Your task to perform on an android device: turn on notifications settings in the gmail app Image 0: 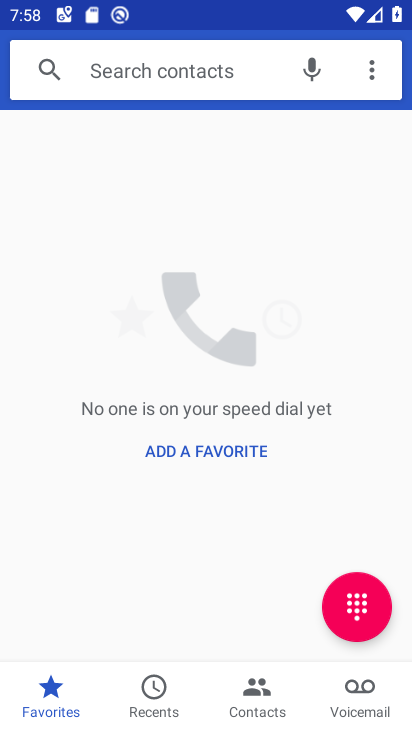
Step 0: press back button
Your task to perform on an android device: turn on notifications settings in the gmail app Image 1: 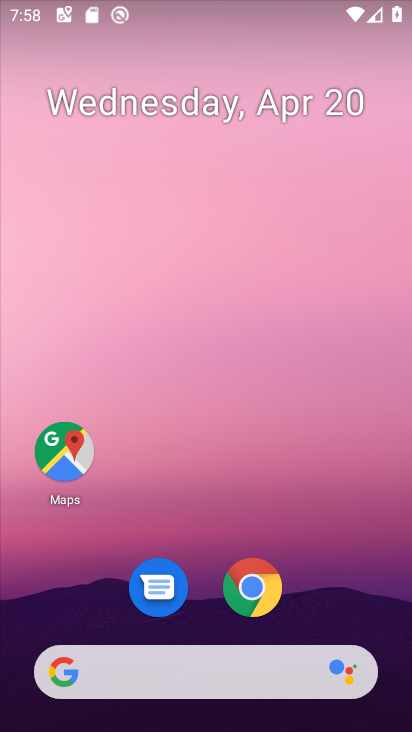
Step 1: drag from (378, 600) to (251, 59)
Your task to perform on an android device: turn on notifications settings in the gmail app Image 2: 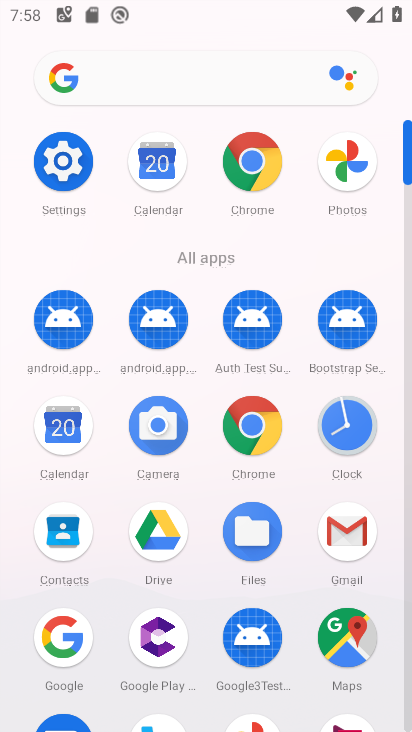
Step 2: click (362, 526)
Your task to perform on an android device: turn on notifications settings in the gmail app Image 3: 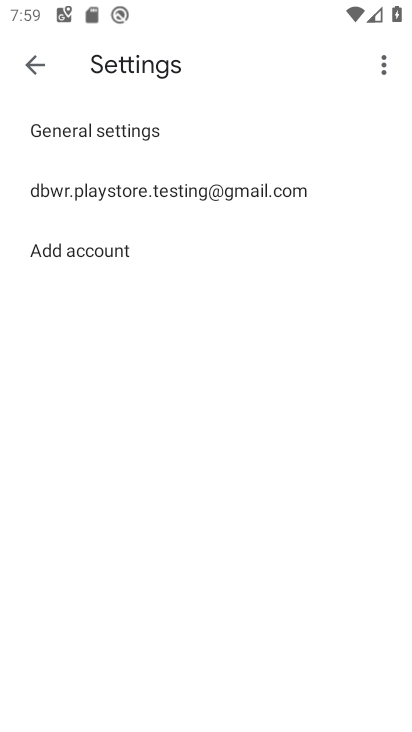
Step 3: click (91, 145)
Your task to perform on an android device: turn on notifications settings in the gmail app Image 4: 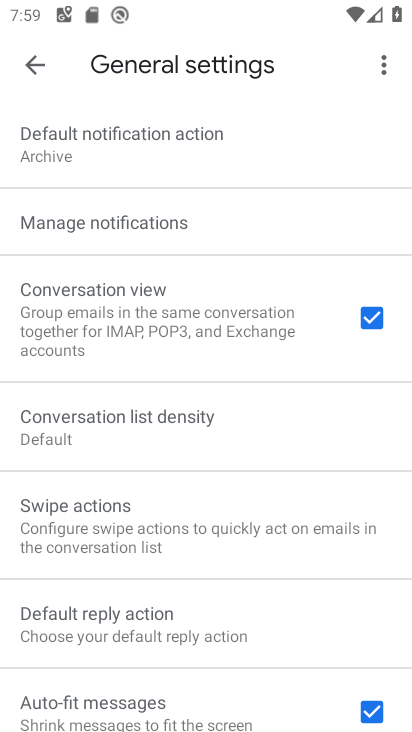
Step 4: click (144, 215)
Your task to perform on an android device: turn on notifications settings in the gmail app Image 5: 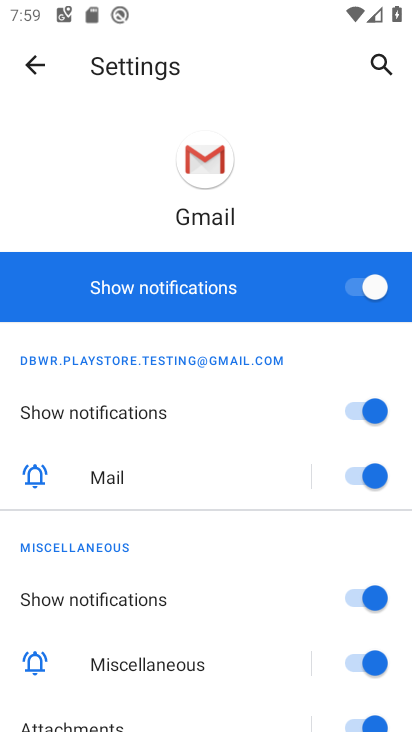
Step 5: click (341, 294)
Your task to perform on an android device: turn on notifications settings in the gmail app Image 6: 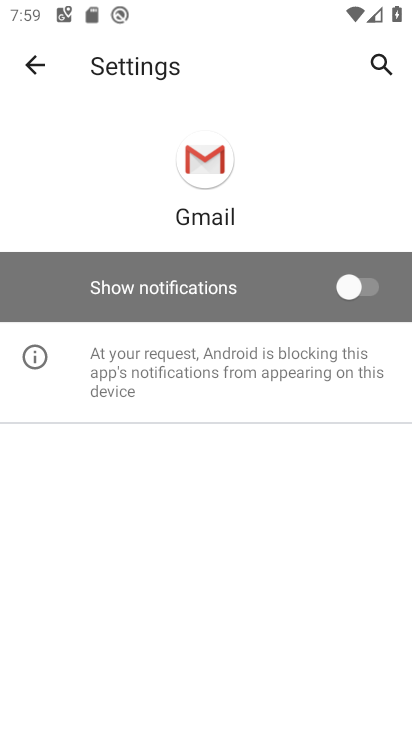
Step 6: task complete